Your task to perform on an android device: Open the map Image 0: 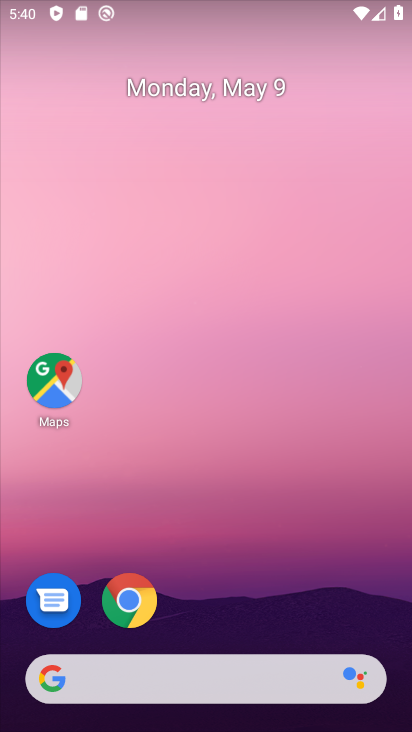
Step 0: drag from (224, 609) to (267, 74)
Your task to perform on an android device: Open the map Image 1: 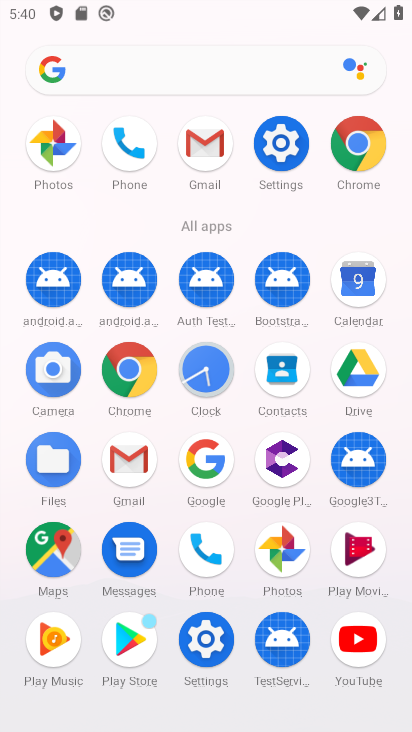
Step 1: click (51, 537)
Your task to perform on an android device: Open the map Image 2: 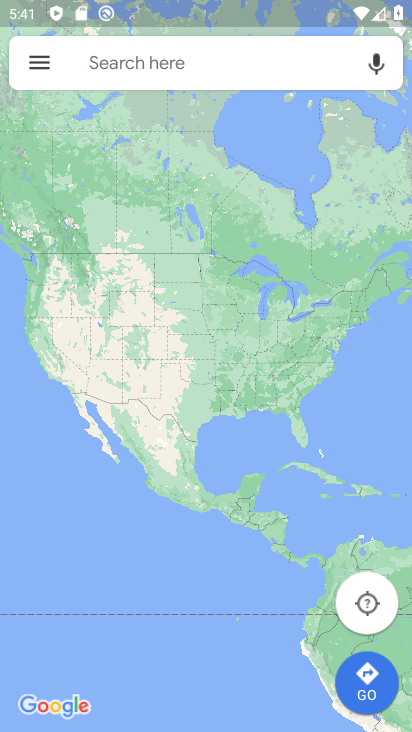
Step 2: click (168, 22)
Your task to perform on an android device: Open the map Image 3: 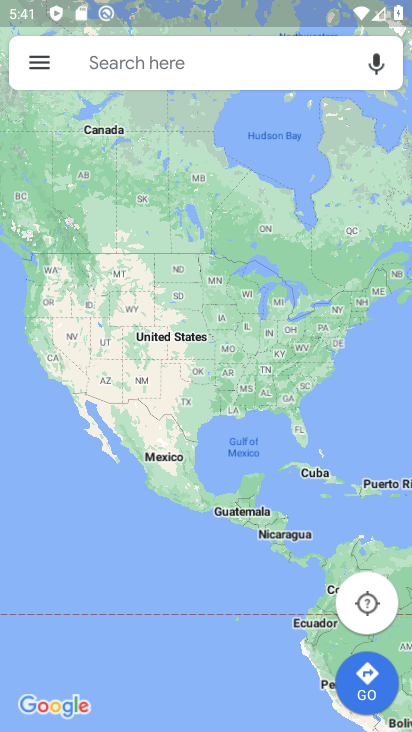
Step 3: task complete